Your task to perform on an android device: Open sound settings Image 0: 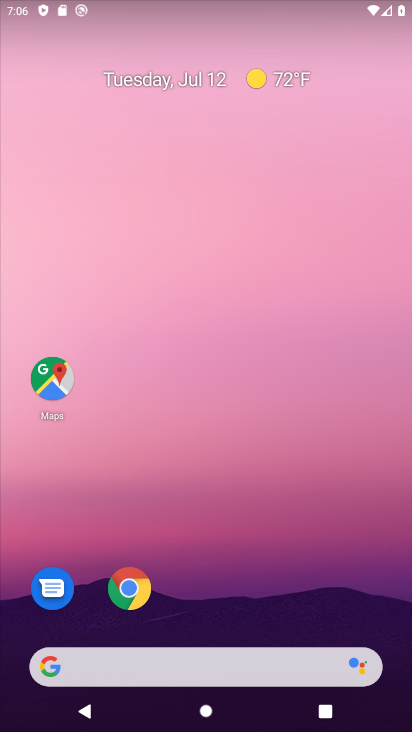
Step 0: drag from (267, 421) to (303, 53)
Your task to perform on an android device: Open sound settings Image 1: 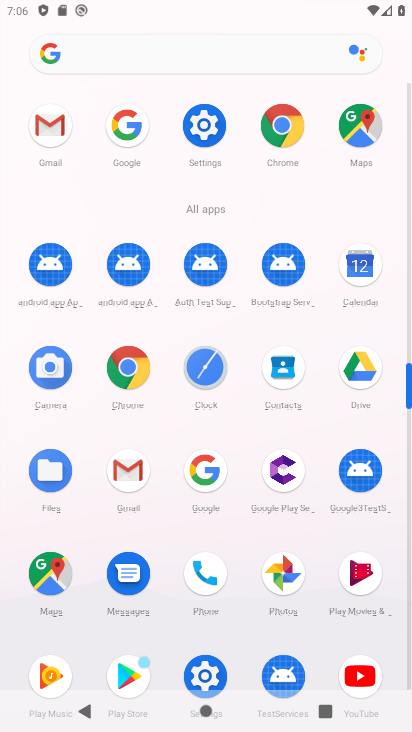
Step 1: click (195, 136)
Your task to perform on an android device: Open sound settings Image 2: 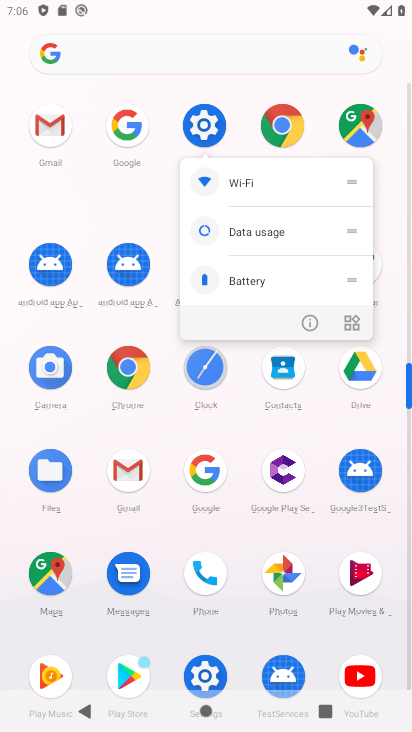
Step 2: click (196, 136)
Your task to perform on an android device: Open sound settings Image 3: 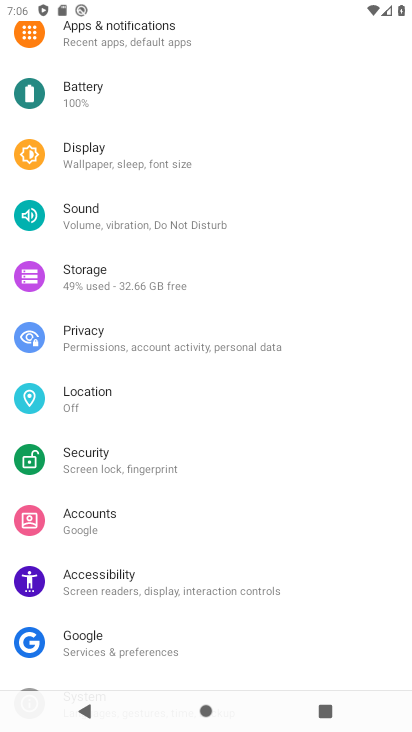
Step 3: click (144, 217)
Your task to perform on an android device: Open sound settings Image 4: 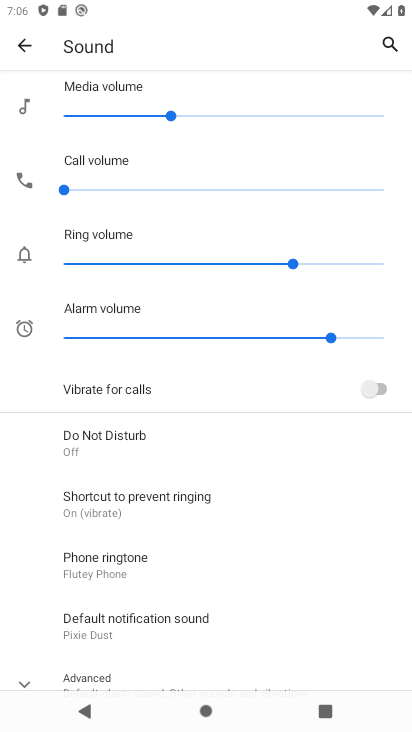
Step 4: task complete